Your task to perform on an android device: turn off location history Image 0: 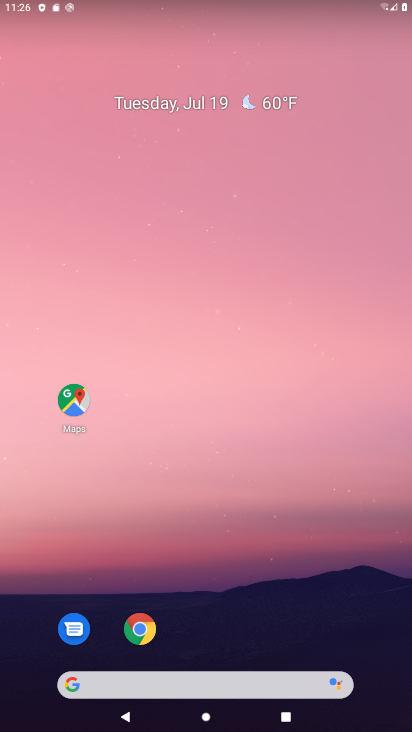
Step 0: drag from (278, 622) to (278, 117)
Your task to perform on an android device: turn off location history Image 1: 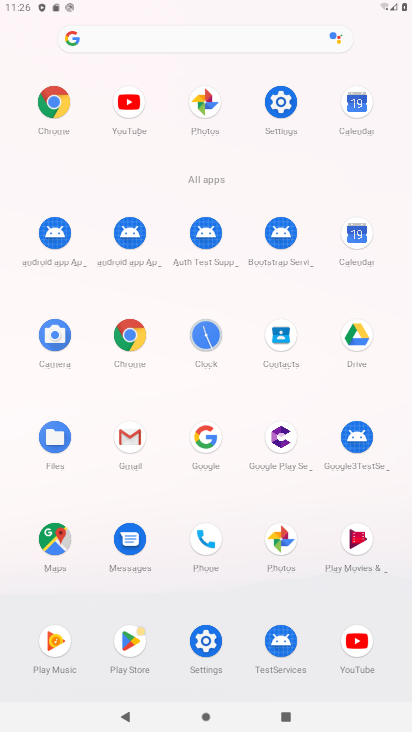
Step 1: click (290, 110)
Your task to perform on an android device: turn off location history Image 2: 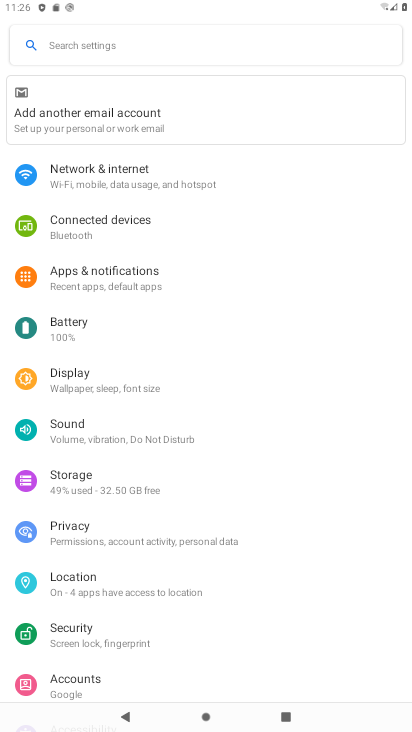
Step 2: click (100, 583)
Your task to perform on an android device: turn off location history Image 3: 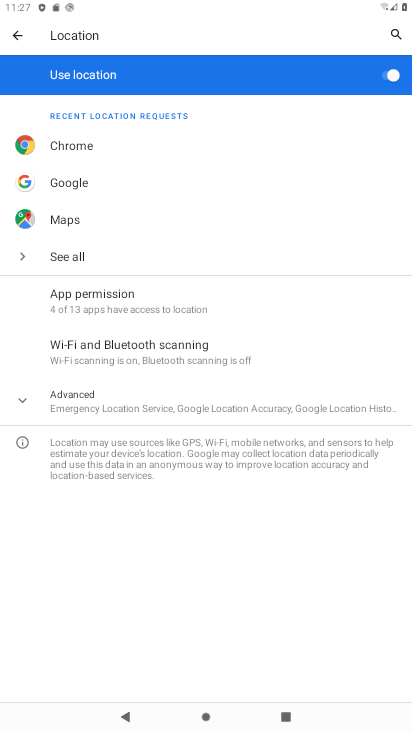
Step 3: click (106, 402)
Your task to perform on an android device: turn off location history Image 4: 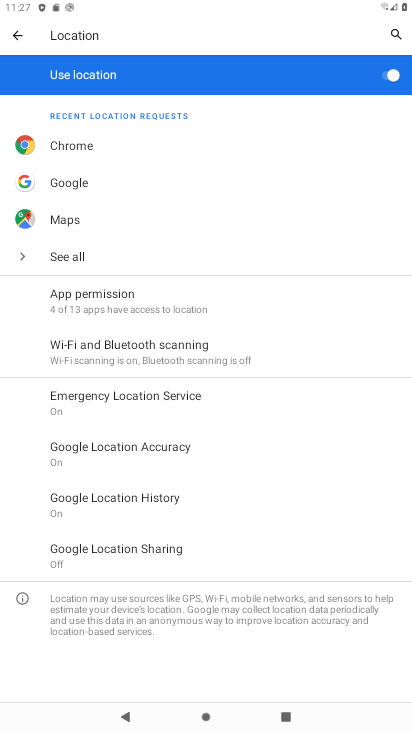
Step 4: click (122, 500)
Your task to perform on an android device: turn off location history Image 5: 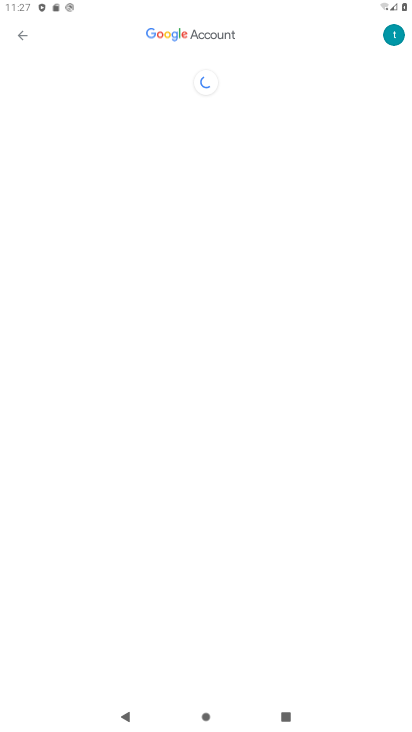
Step 5: click (371, 431)
Your task to perform on an android device: turn off location history Image 6: 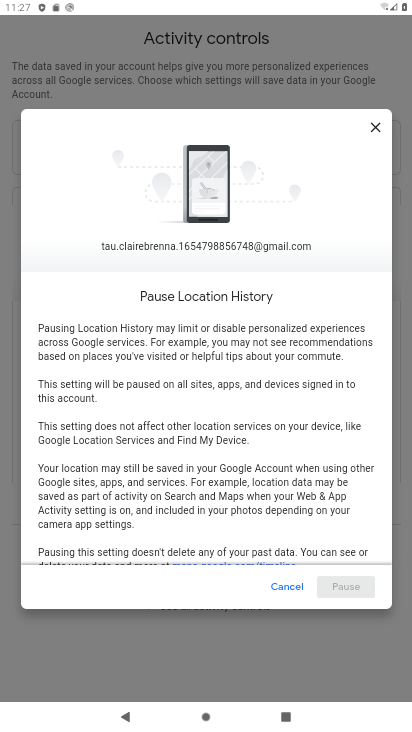
Step 6: drag from (339, 508) to (297, 94)
Your task to perform on an android device: turn off location history Image 7: 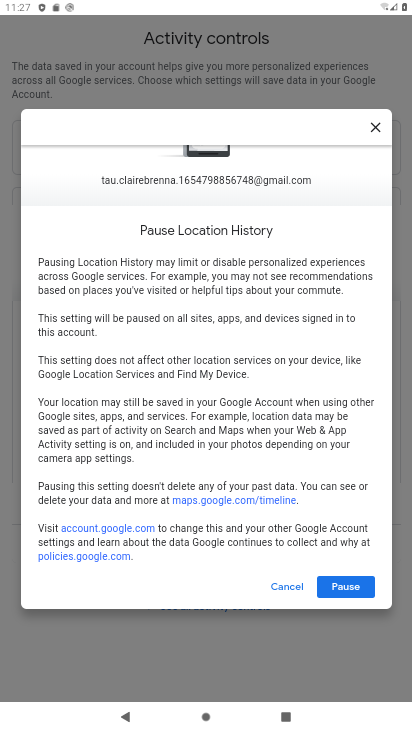
Step 7: click (336, 583)
Your task to perform on an android device: turn off location history Image 8: 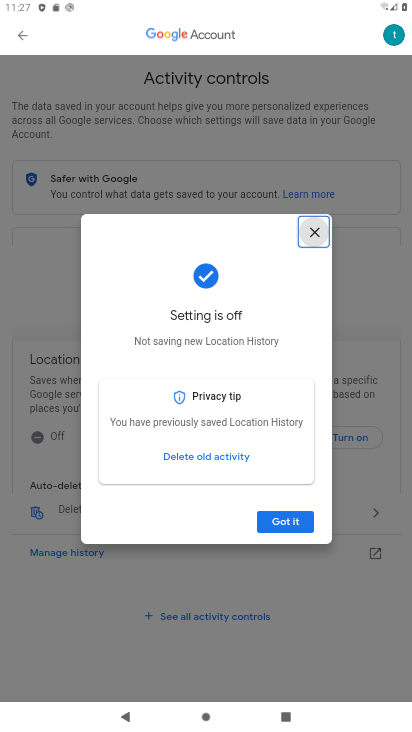
Step 8: task complete